Your task to perform on an android device: Turn on the flashlight Image 0: 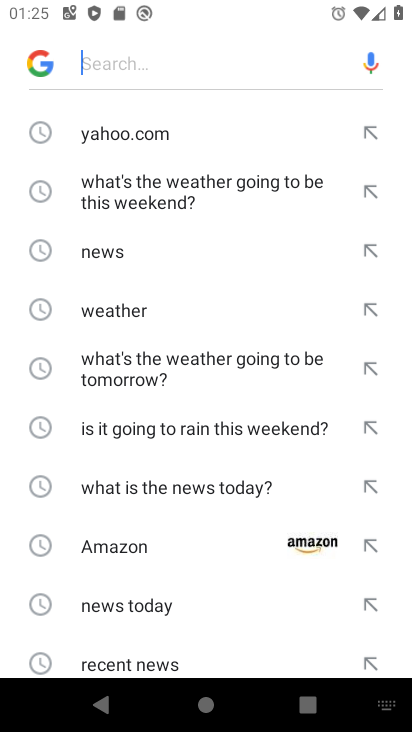
Step 0: drag from (248, 23) to (251, 511)
Your task to perform on an android device: Turn on the flashlight Image 1: 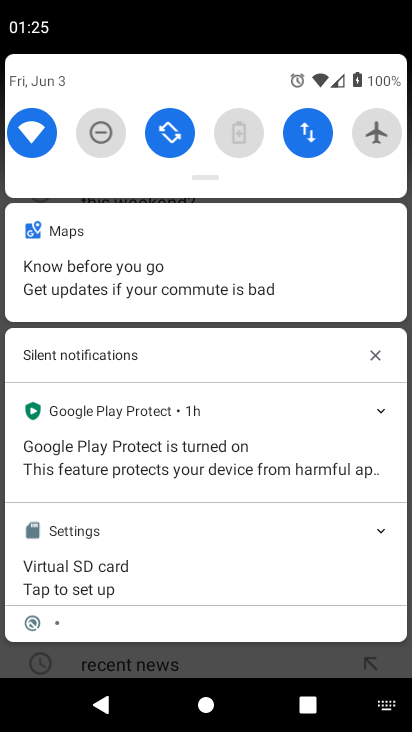
Step 1: task complete